Your task to perform on an android device: turn off data saver in the chrome app Image 0: 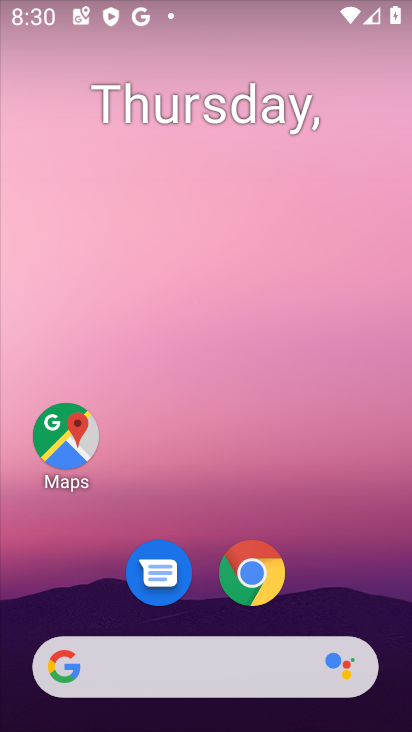
Step 0: drag from (364, 579) to (373, 169)
Your task to perform on an android device: turn off data saver in the chrome app Image 1: 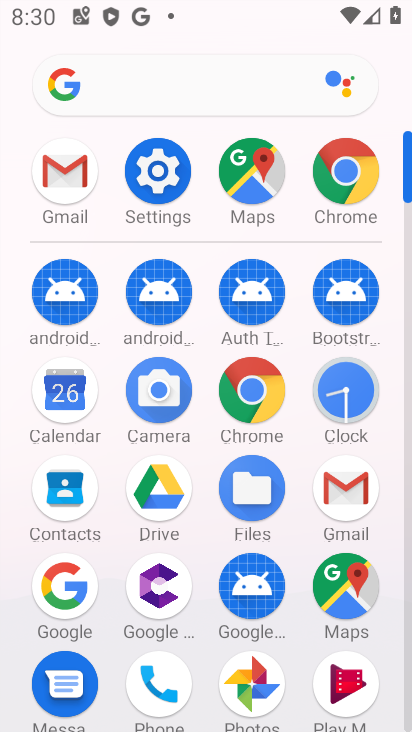
Step 1: click (276, 409)
Your task to perform on an android device: turn off data saver in the chrome app Image 2: 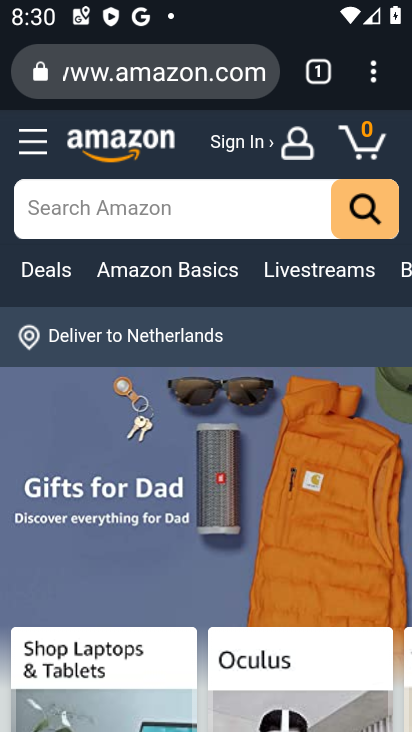
Step 2: drag from (377, 78) to (199, 577)
Your task to perform on an android device: turn off data saver in the chrome app Image 3: 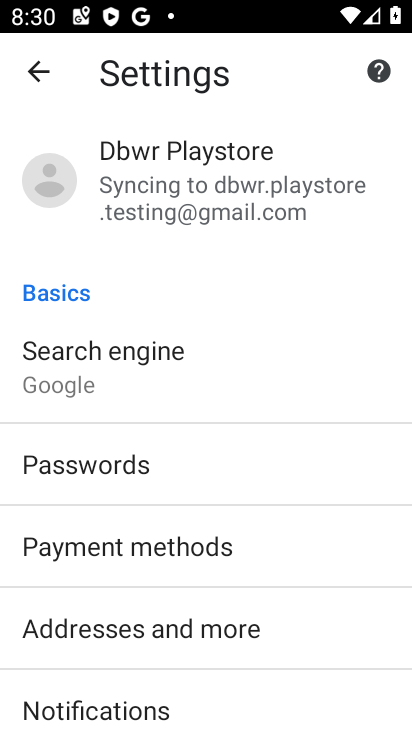
Step 3: drag from (291, 687) to (345, 312)
Your task to perform on an android device: turn off data saver in the chrome app Image 4: 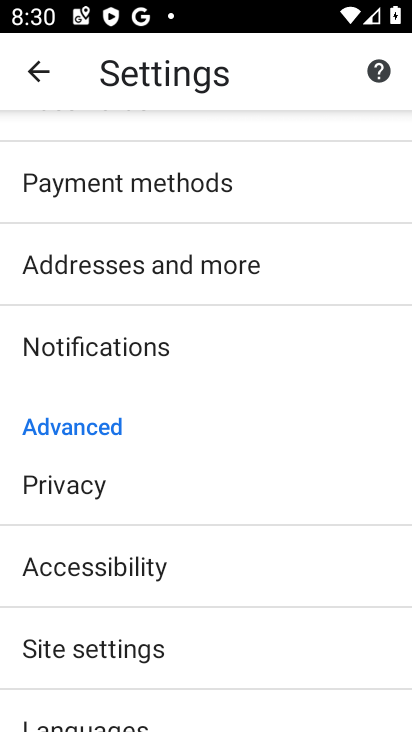
Step 4: drag from (272, 705) to (301, 298)
Your task to perform on an android device: turn off data saver in the chrome app Image 5: 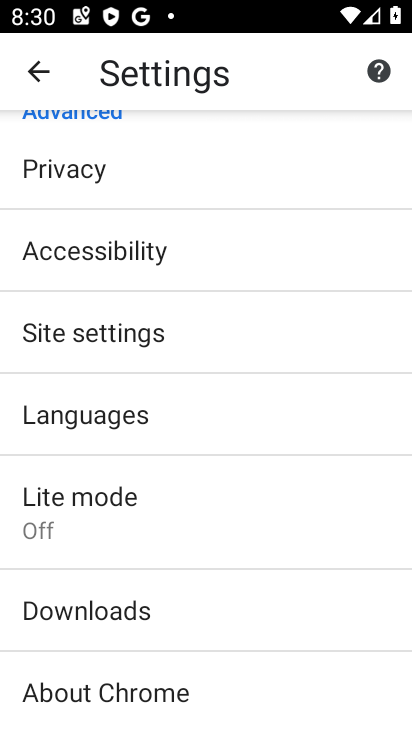
Step 5: click (152, 529)
Your task to perform on an android device: turn off data saver in the chrome app Image 6: 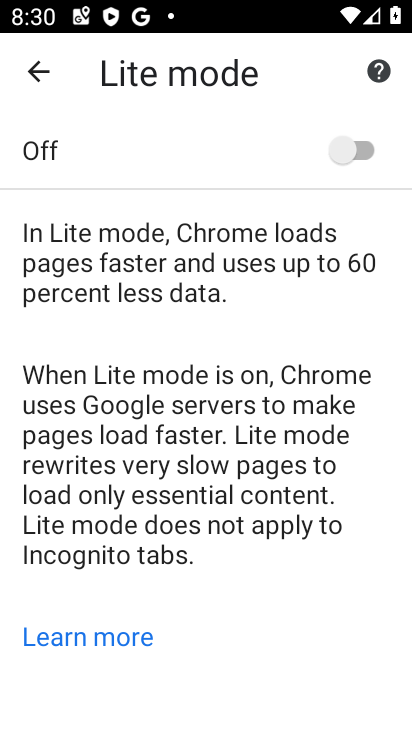
Step 6: task complete